Your task to perform on an android device: see creations saved in the google photos Image 0: 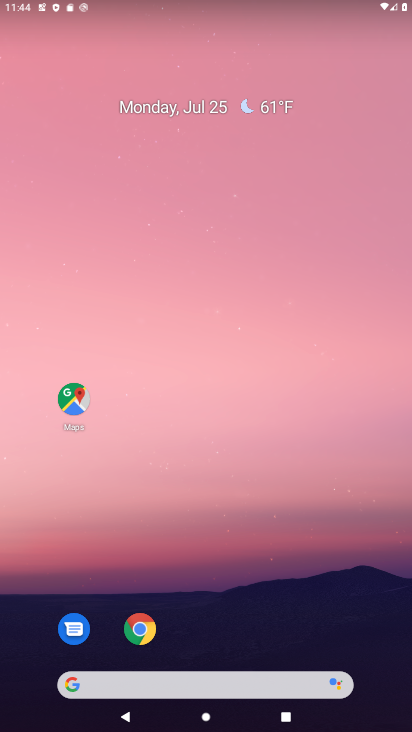
Step 0: drag from (199, 500) to (199, 91)
Your task to perform on an android device: see creations saved in the google photos Image 1: 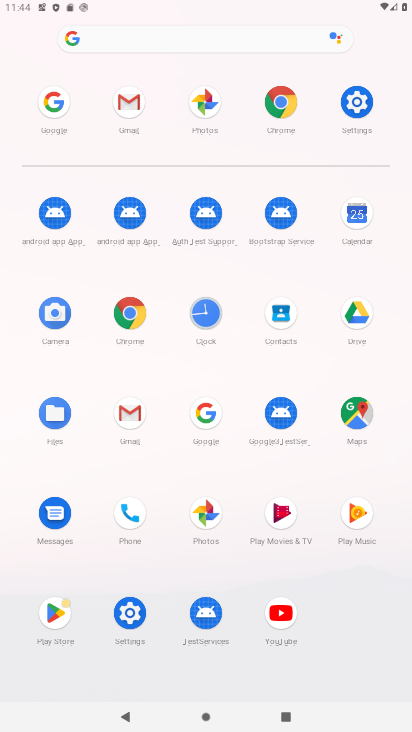
Step 1: click (214, 108)
Your task to perform on an android device: see creations saved in the google photos Image 2: 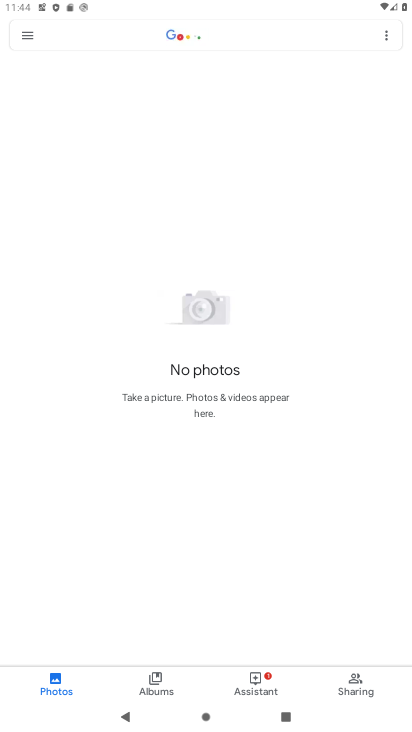
Step 2: click (157, 35)
Your task to perform on an android device: see creations saved in the google photos Image 3: 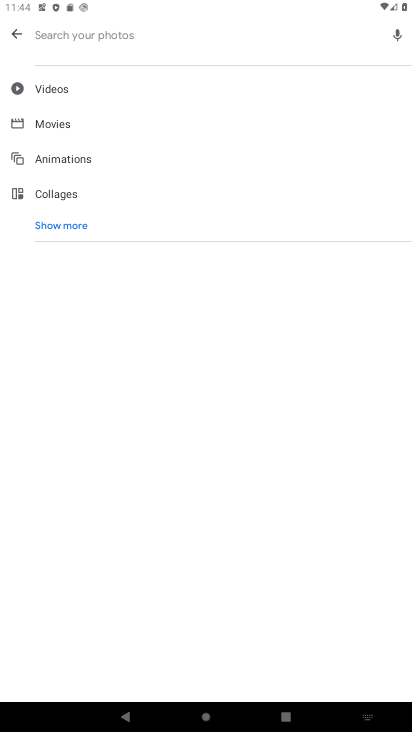
Step 3: click (86, 220)
Your task to perform on an android device: see creations saved in the google photos Image 4: 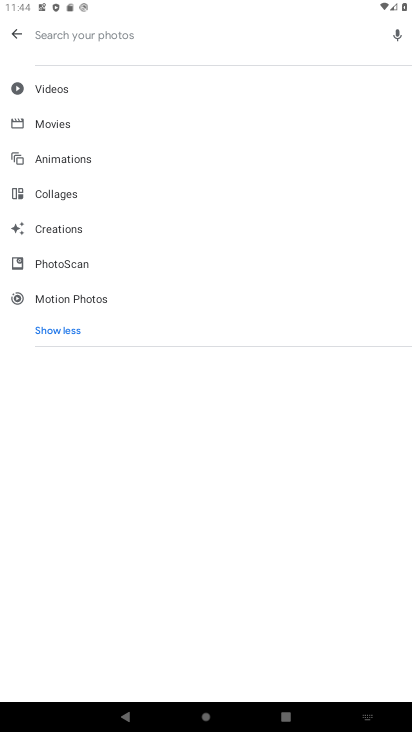
Step 4: click (73, 231)
Your task to perform on an android device: see creations saved in the google photos Image 5: 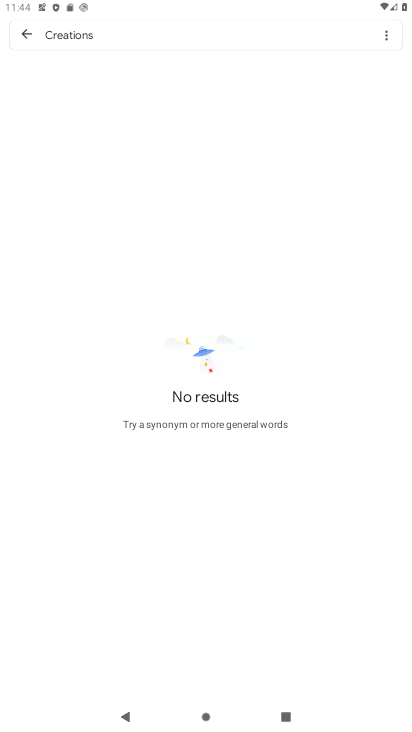
Step 5: task complete